Your task to perform on an android device: Open calendar and show me the third week of next month Image 0: 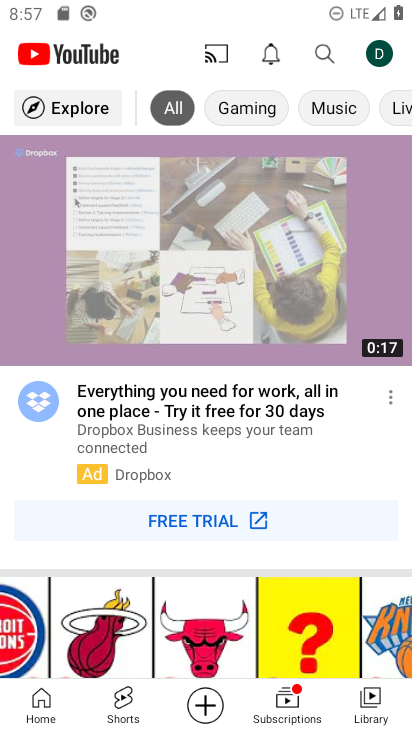
Step 0: press home button
Your task to perform on an android device: Open calendar and show me the third week of next month Image 1: 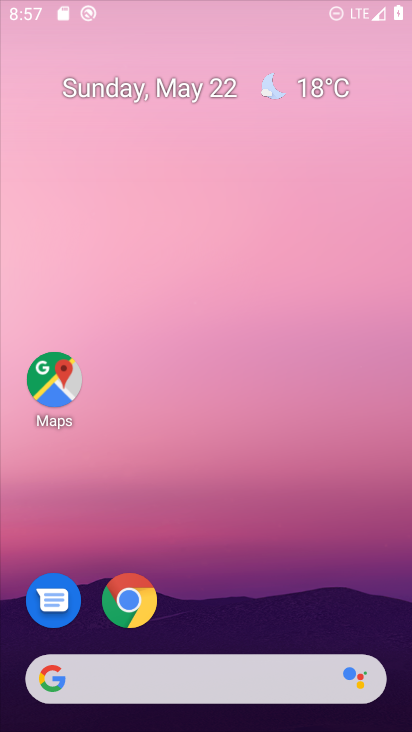
Step 1: drag from (393, 651) to (221, 138)
Your task to perform on an android device: Open calendar and show me the third week of next month Image 2: 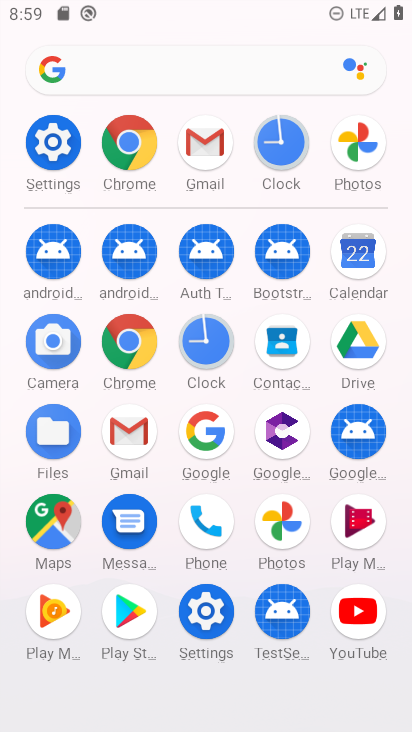
Step 2: click (367, 259)
Your task to perform on an android device: Open calendar and show me the third week of next month Image 3: 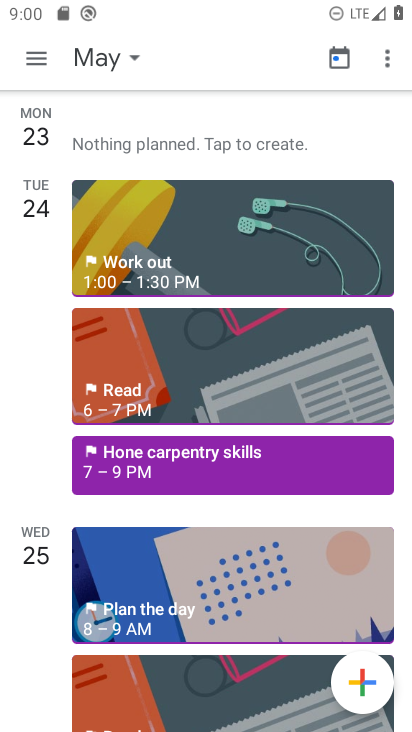
Step 3: click (81, 53)
Your task to perform on an android device: Open calendar and show me the third week of next month Image 4: 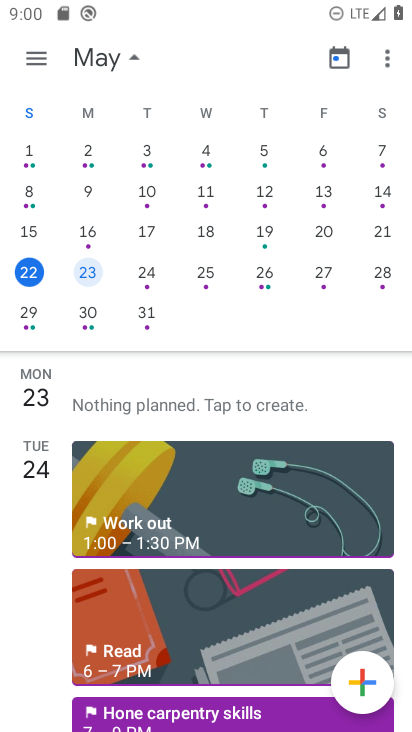
Step 4: drag from (294, 233) to (3, 153)
Your task to perform on an android device: Open calendar and show me the third week of next month Image 5: 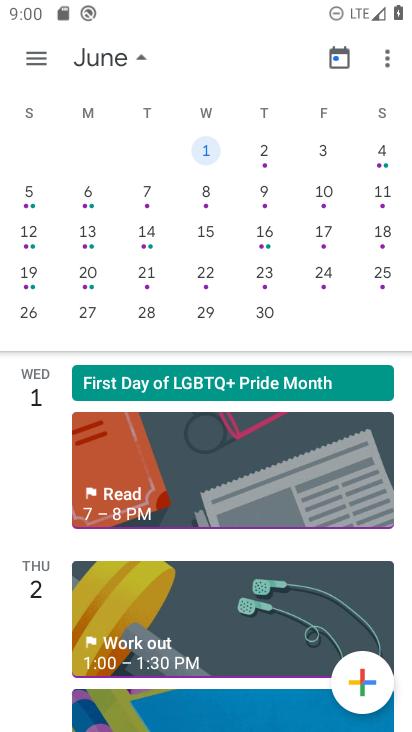
Step 5: click (90, 273)
Your task to perform on an android device: Open calendar and show me the third week of next month Image 6: 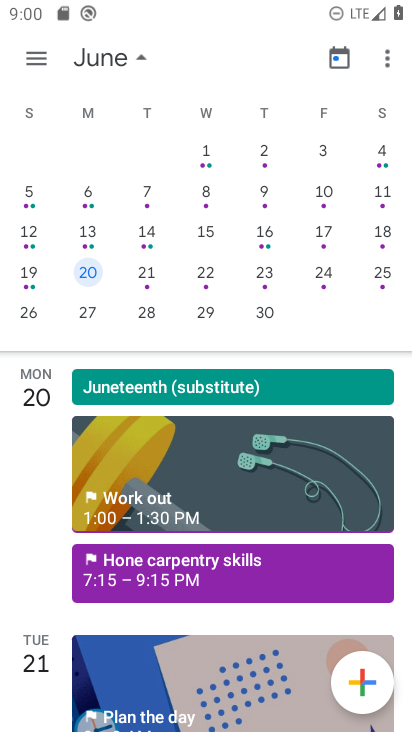
Step 6: task complete